Your task to perform on an android device: Search for a dining table on crateandbarrel.com Image 0: 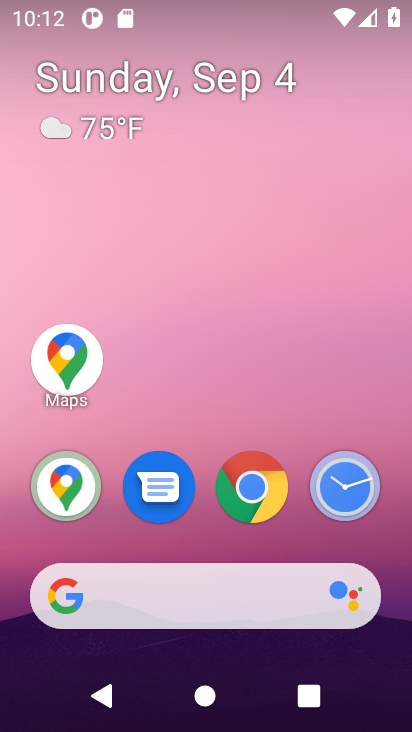
Step 0: click (341, 469)
Your task to perform on an android device: Search for a dining table on crateandbarrel.com Image 1: 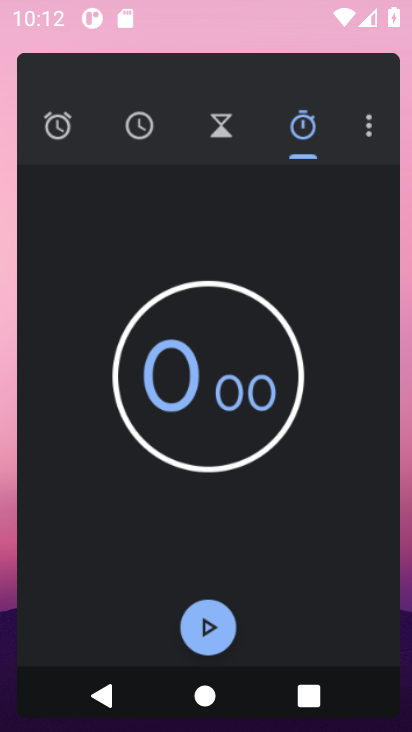
Step 1: task complete